Your task to perform on an android device: change alarm snooze length Image 0: 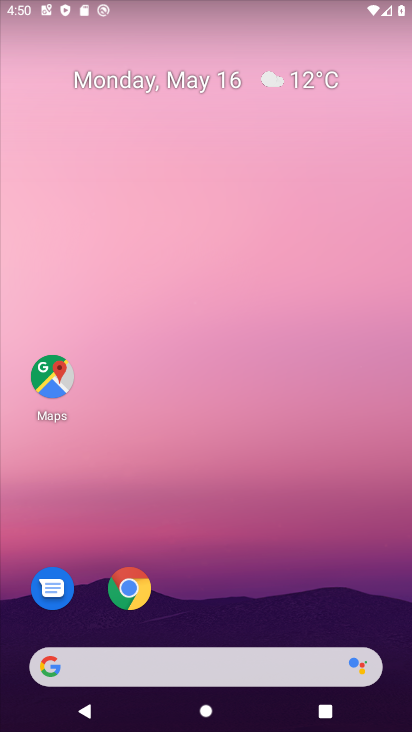
Step 0: drag from (267, 579) to (360, 78)
Your task to perform on an android device: change alarm snooze length Image 1: 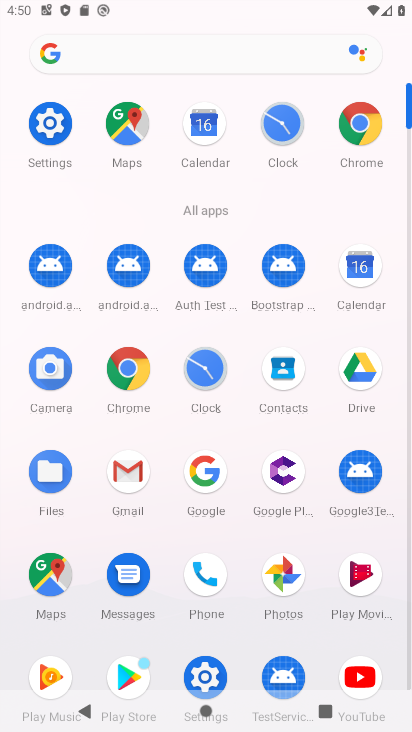
Step 1: click (194, 371)
Your task to perform on an android device: change alarm snooze length Image 2: 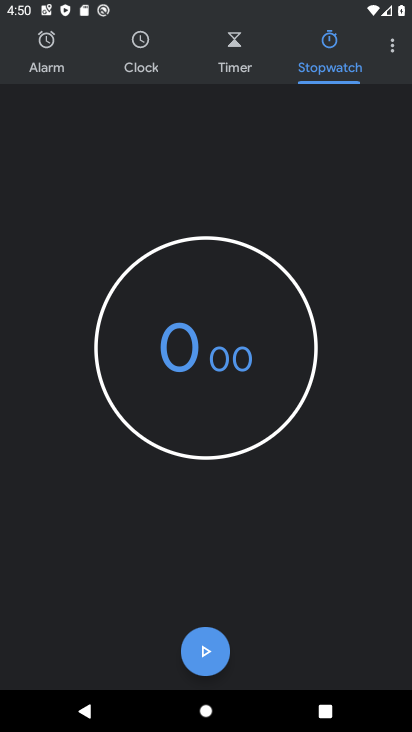
Step 2: click (392, 40)
Your task to perform on an android device: change alarm snooze length Image 3: 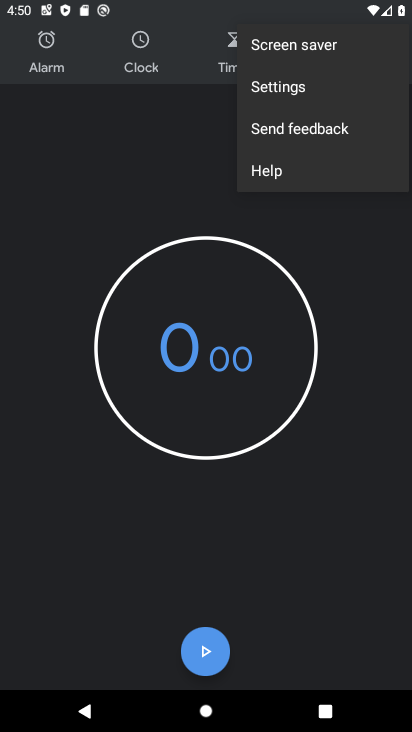
Step 3: click (278, 84)
Your task to perform on an android device: change alarm snooze length Image 4: 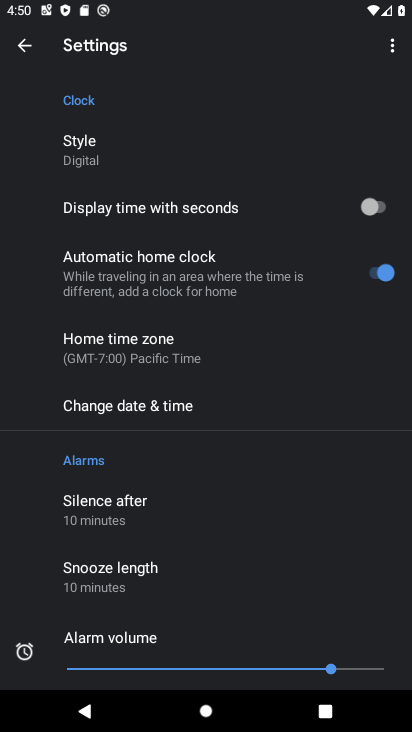
Step 4: click (132, 581)
Your task to perform on an android device: change alarm snooze length Image 5: 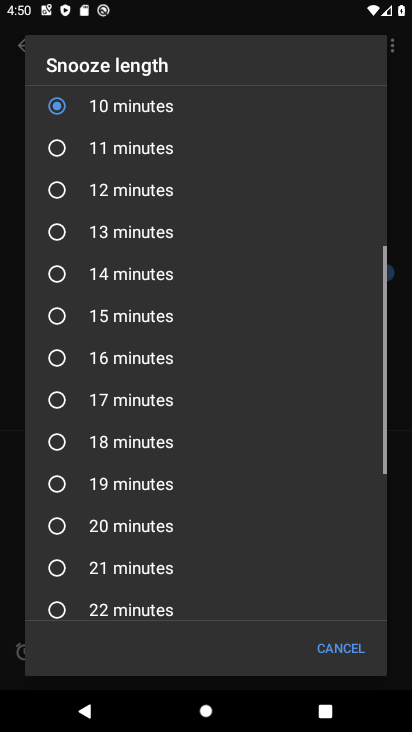
Step 5: click (105, 226)
Your task to perform on an android device: change alarm snooze length Image 6: 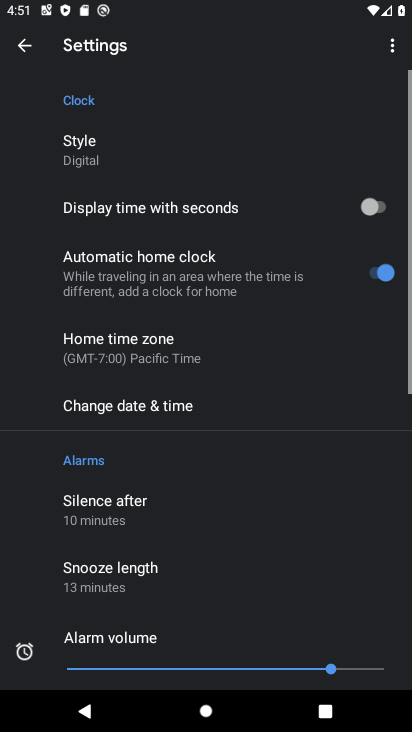
Step 6: task complete